Your task to perform on an android device: Open my contact list Image 0: 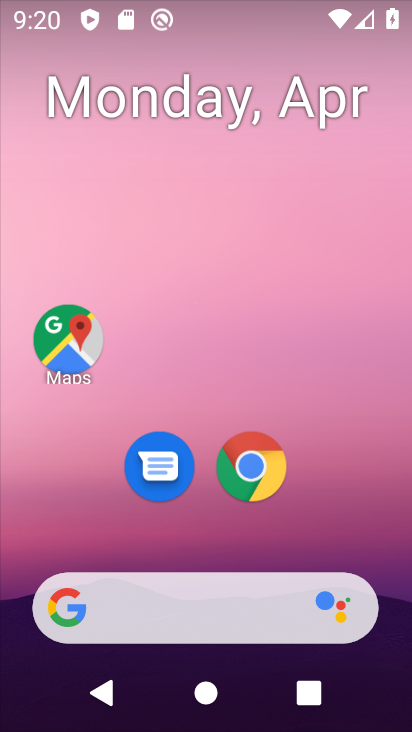
Step 0: press home button
Your task to perform on an android device: Open my contact list Image 1: 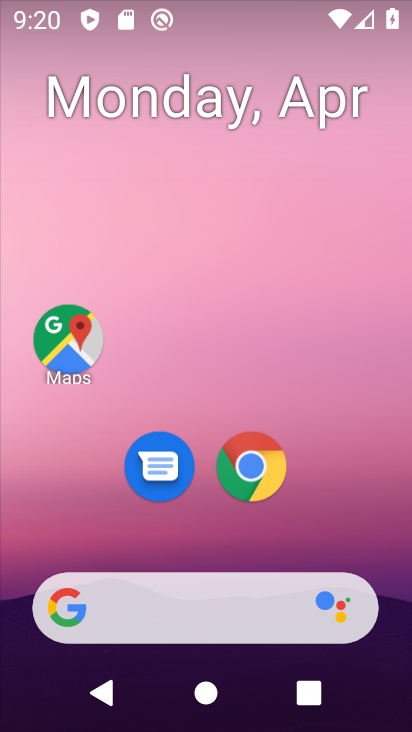
Step 1: drag from (188, 530) to (281, 132)
Your task to perform on an android device: Open my contact list Image 2: 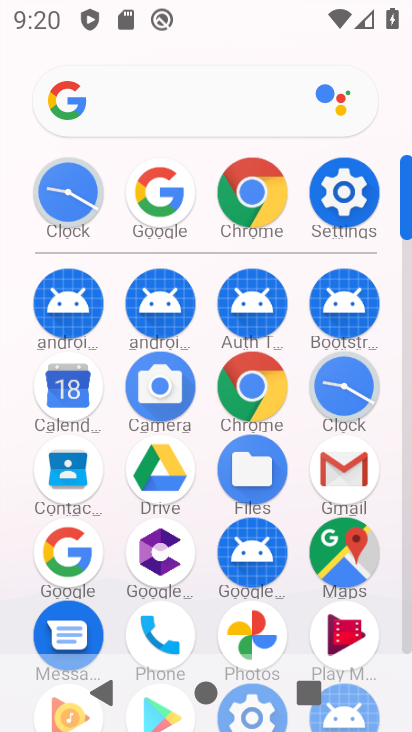
Step 2: click (69, 474)
Your task to perform on an android device: Open my contact list Image 3: 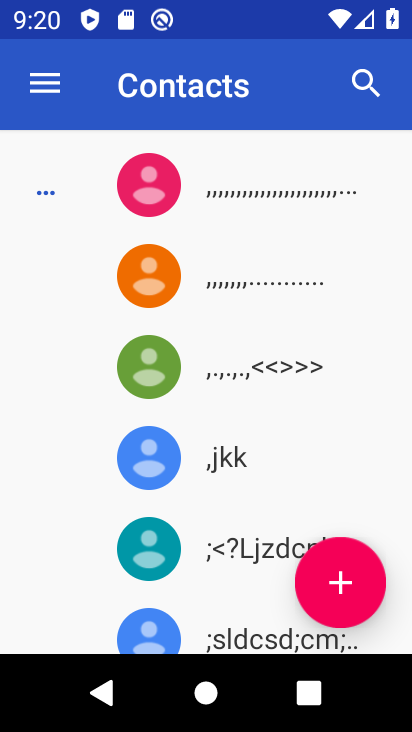
Step 3: task complete